Your task to perform on an android device: Open settings Image 0: 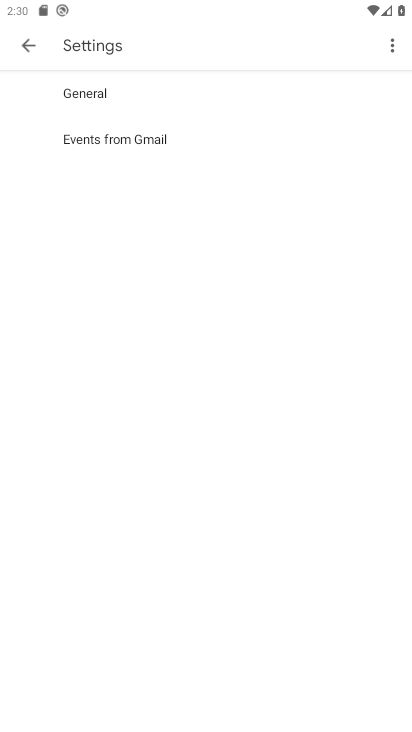
Step 0: press home button
Your task to perform on an android device: Open settings Image 1: 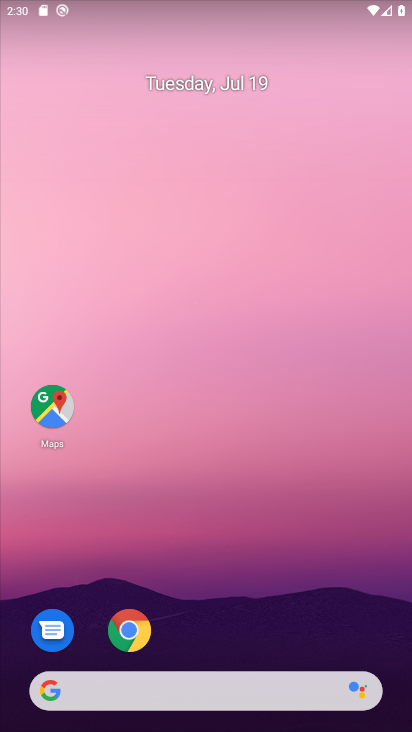
Step 1: drag from (231, 544) to (225, 79)
Your task to perform on an android device: Open settings Image 2: 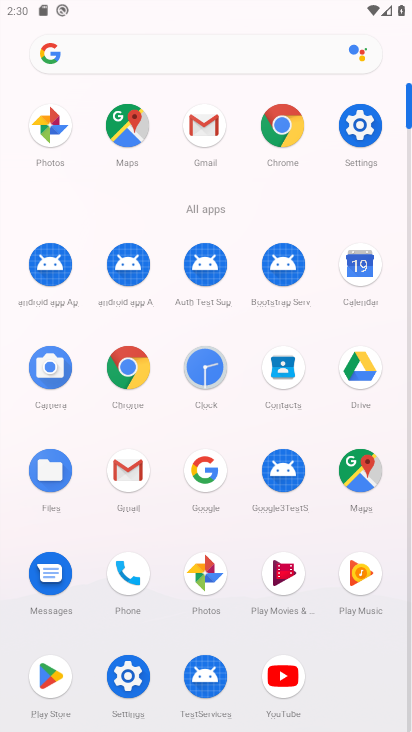
Step 2: click (357, 117)
Your task to perform on an android device: Open settings Image 3: 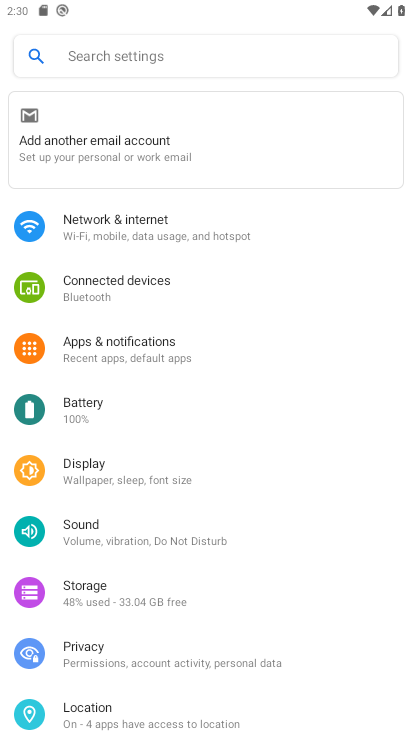
Step 3: task complete